Your task to perform on an android device: What's the price of the Samsung TV? Image 0: 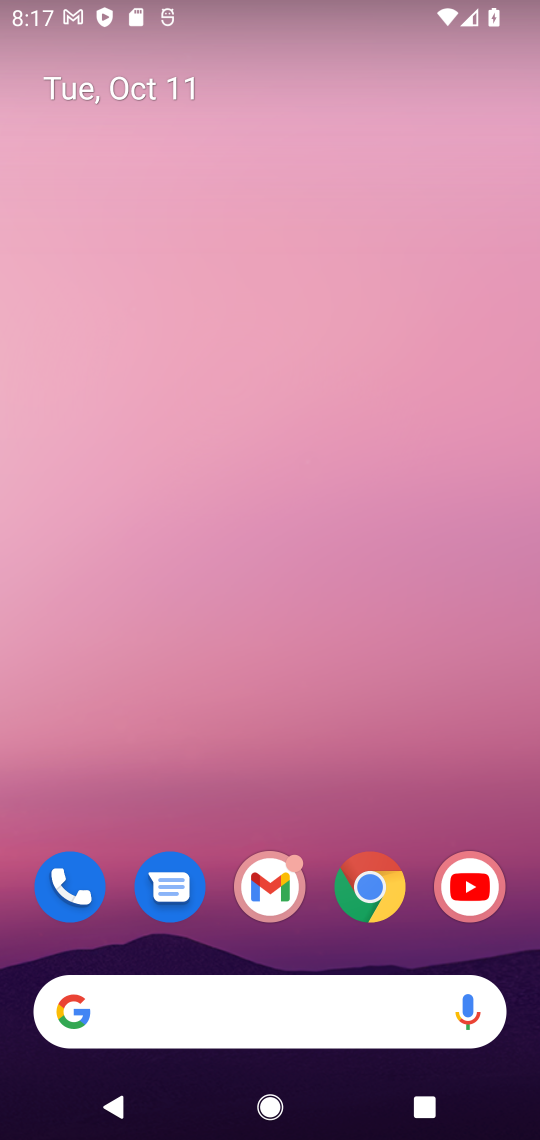
Step 0: click (355, 893)
Your task to perform on an android device: What's the price of the Samsung TV? Image 1: 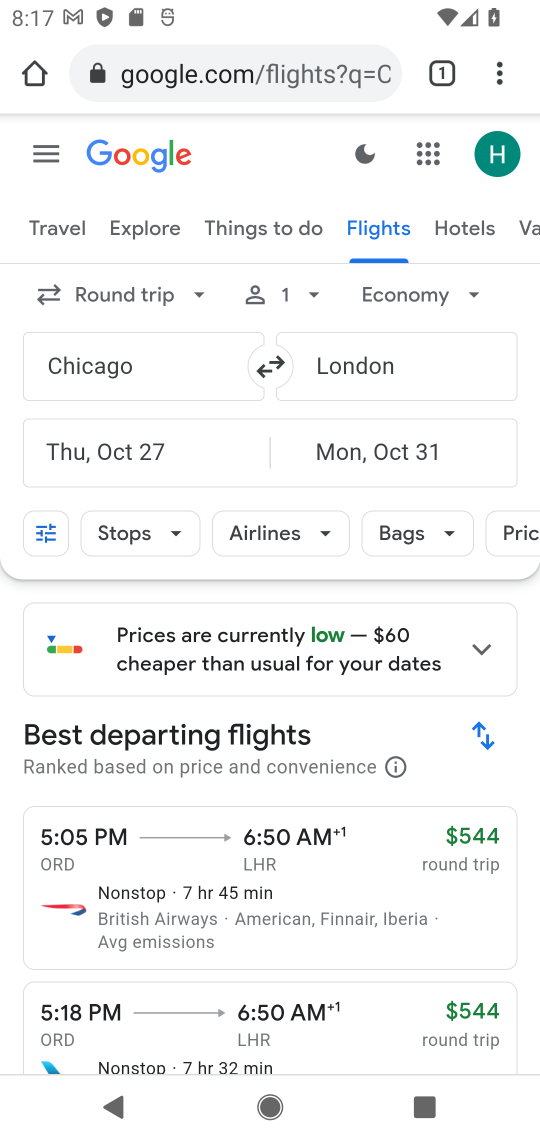
Step 1: click (340, 81)
Your task to perform on an android device: What's the price of the Samsung TV? Image 2: 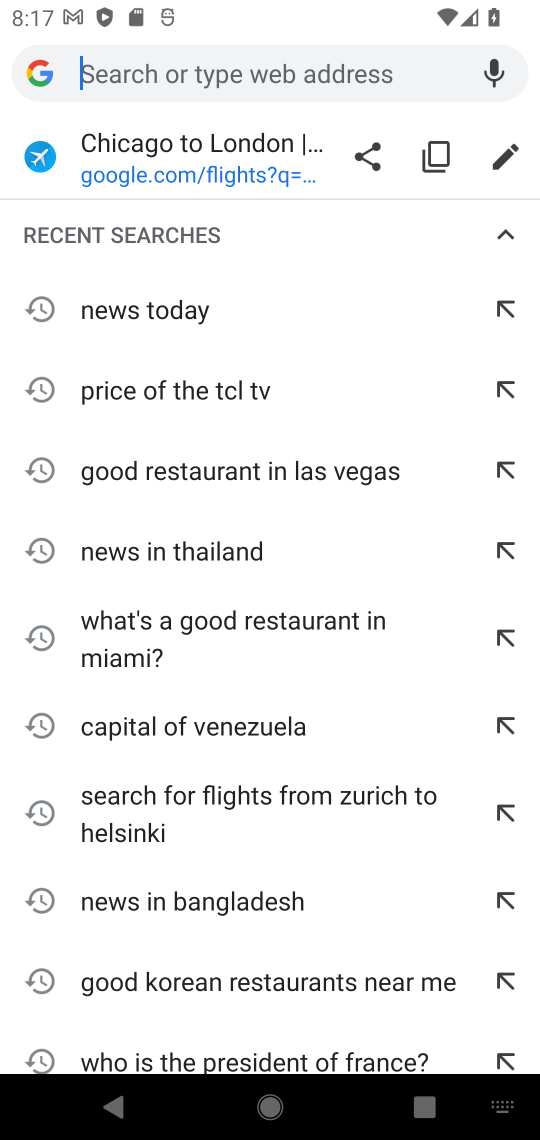
Step 2: type "price of the Samsung TV"
Your task to perform on an android device: What's the price of the Samsung TV? Image 3: 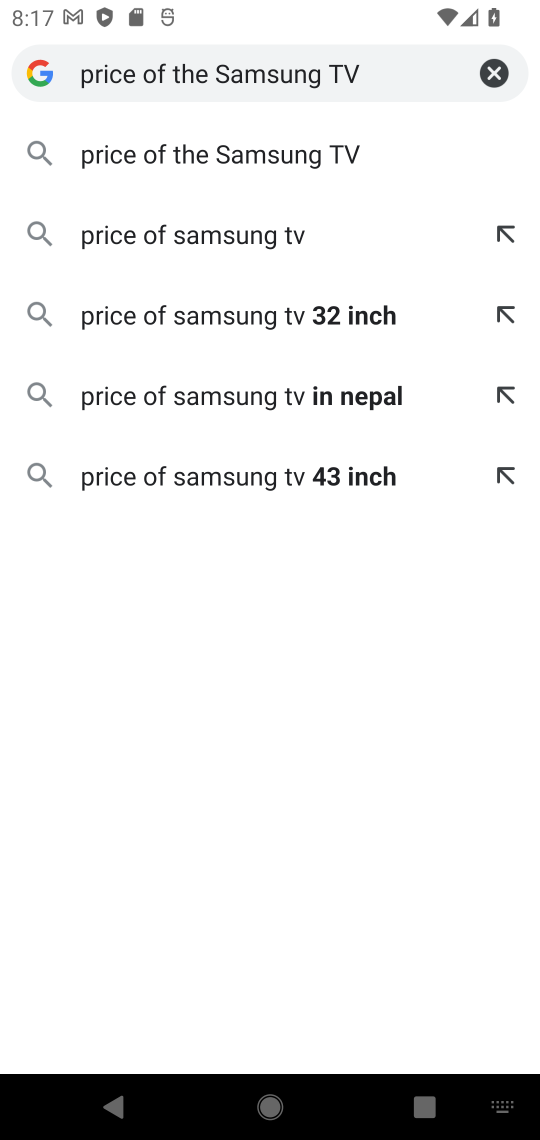
Step 3: click (222, 153)
Your task to perform on an android device: What's the price of the Samsung TV? Image 4: 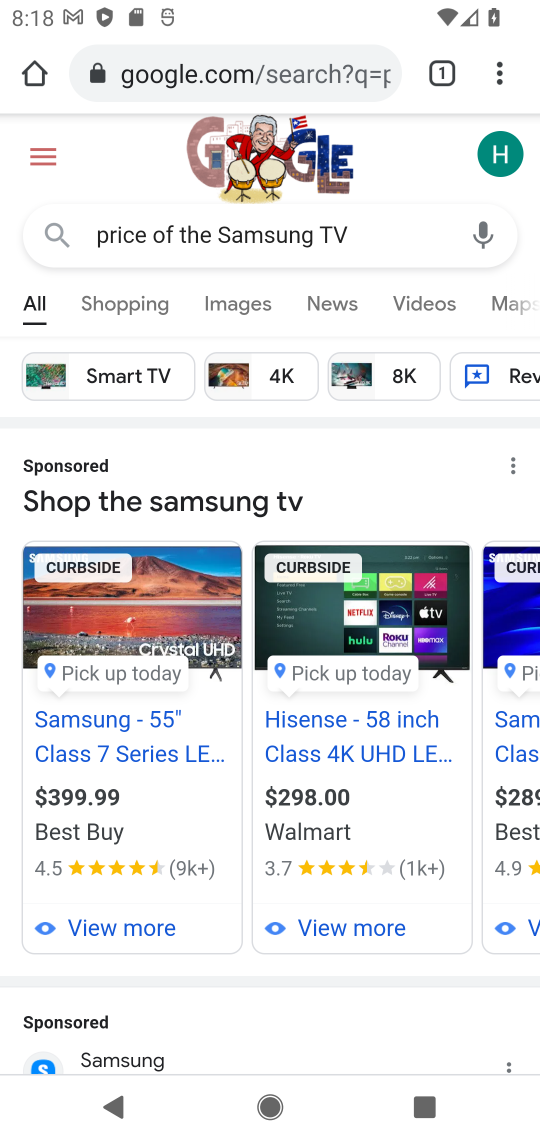
Step 4: task complete